Your task to perform on an android device: Open eBay Image 0: 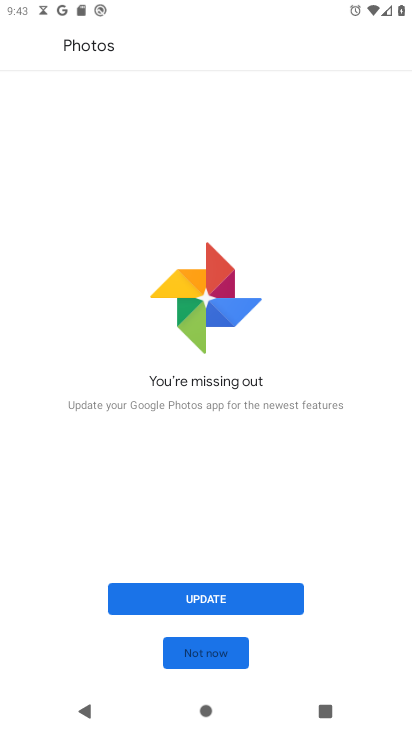
Step 0: press back button
Your task to perform on an android device: Open eBay Image 1: 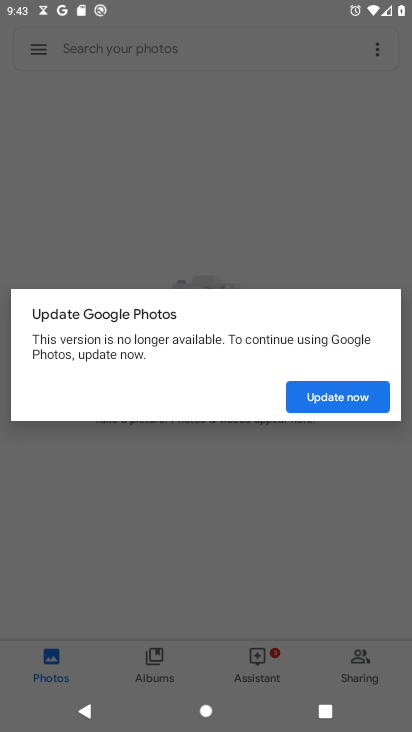
Step 1: press home button
Your task to perform on an android device: Open eBay Image 2: 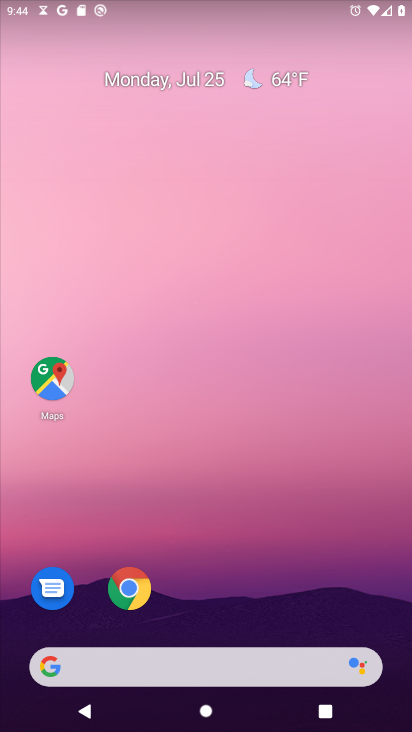
Step 2: click (134, 592)
Your task to perform on an android device: Open eBay Image 3: 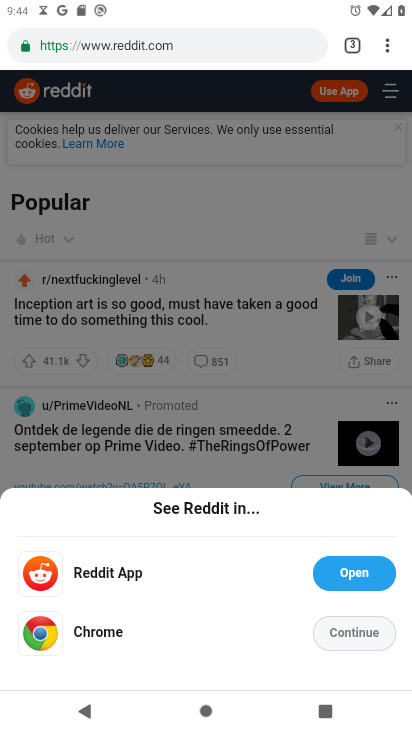
Step 3: click (141, 54)
Your task to perform on an android device: Open eBay Image 4: 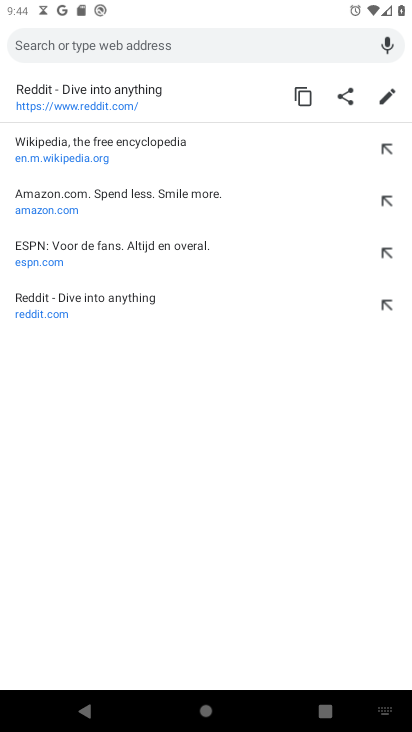
Step 4: type "ebay"
Your task to perform on an android device: Open eBay Image 5: 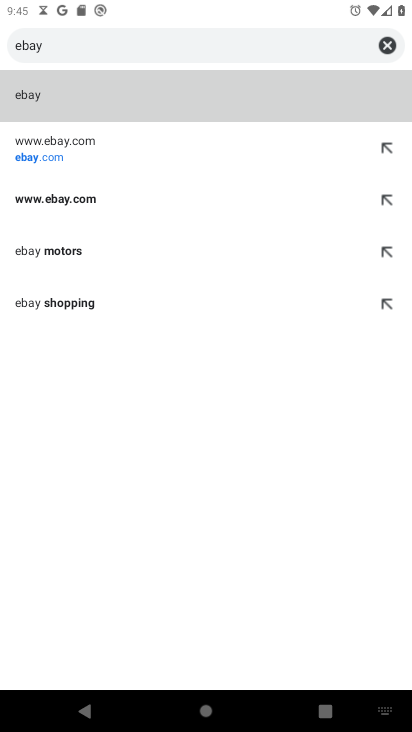
Step 5: click (193, 153)
Your task to perform on an android device: Open eBay Image 6: 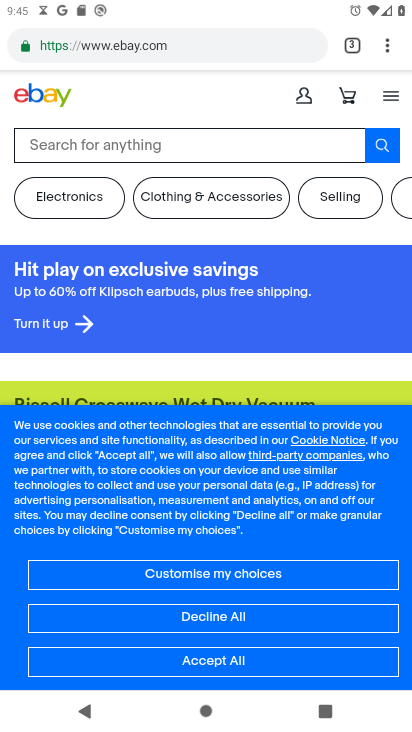
Step 6: task complete